Your task to perform on an android device: change notifications settings Image 0: 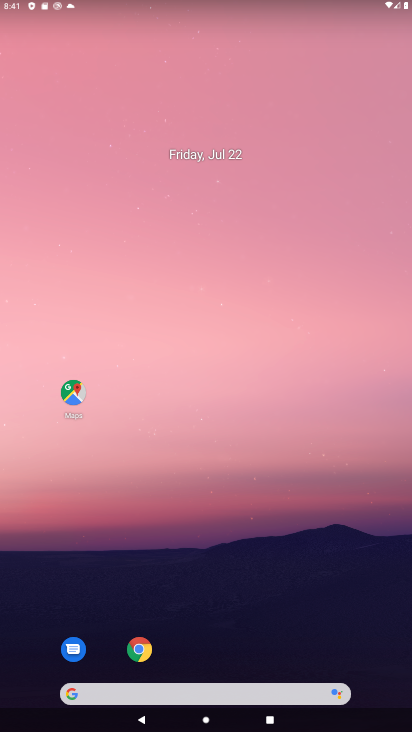
Step 0: drag from (229, 610) to (205, 123)
Your task to perform on an android device: change notifications settings Image 1: 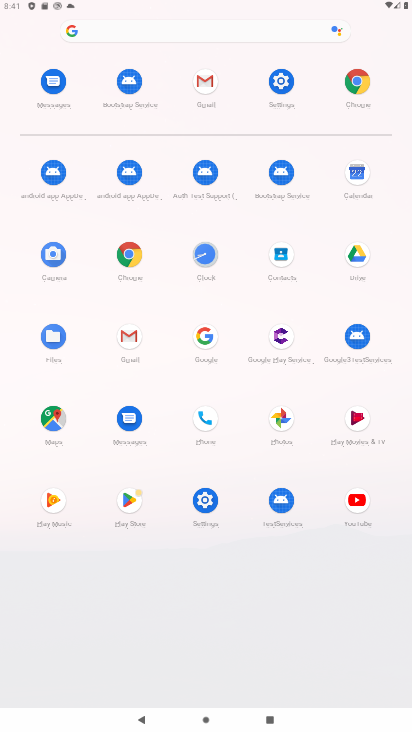
Step 1: click (206, 507)
Your task to perform on an android device: change notifications settings Image 2: 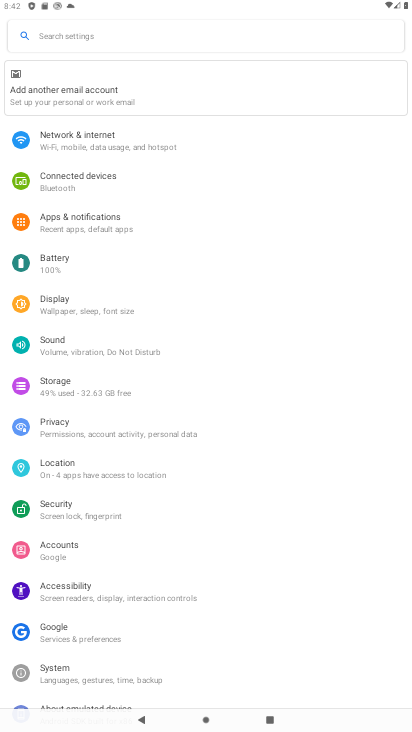
Step 2: click (85, 217)
Your task to perform on an android device: change notifications settings Image 3: 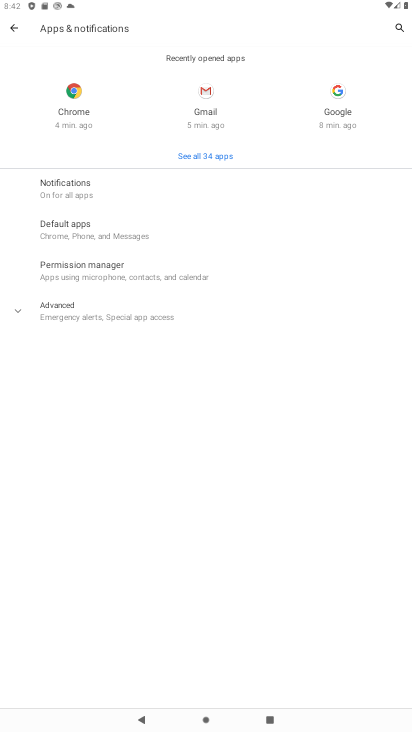
Step 3: task complete